Your task to perform on an android device: Open Android settings Image 0: 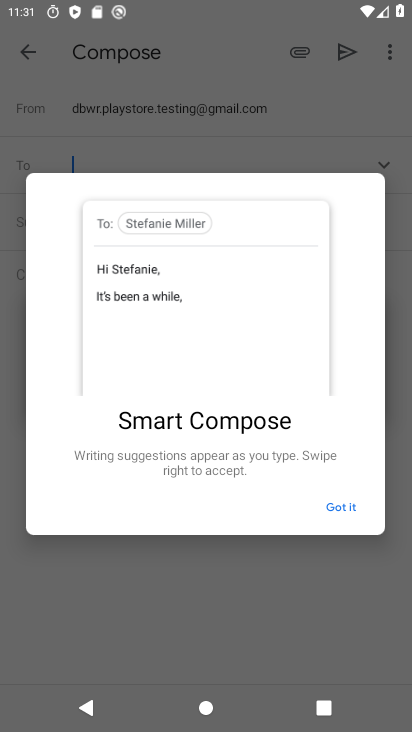
Step 0: press home button
Your task to perform on an android device: Open Android settings Image 1: 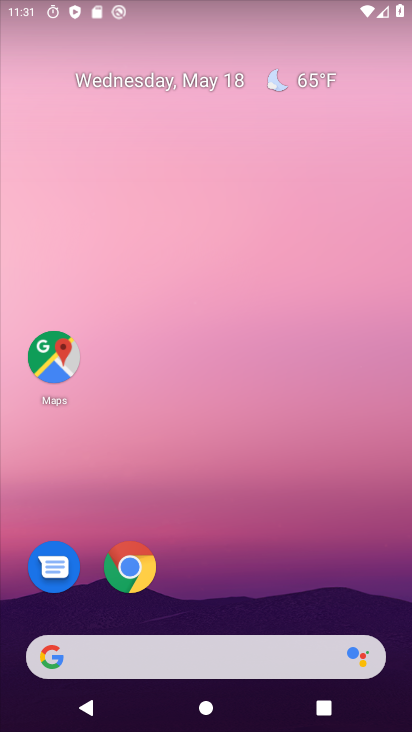
Step 1: drag from (266, 594) to (322, 61)
Your task to perform on an android device: Open Android settings Image 2: 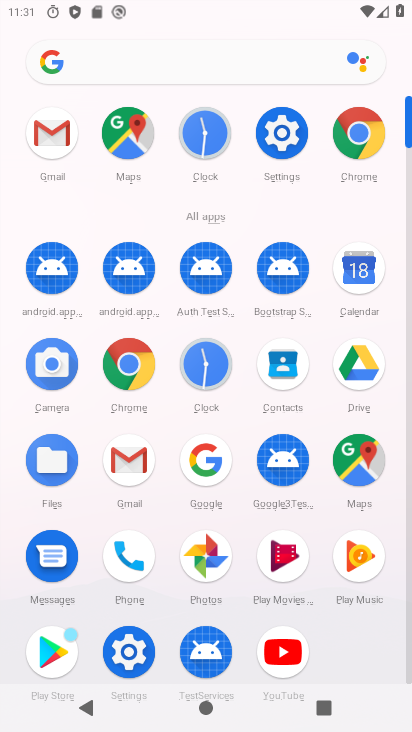
Step 2: click (284, 138)
Your task to perform on an android device: Open Android settings Image 3: 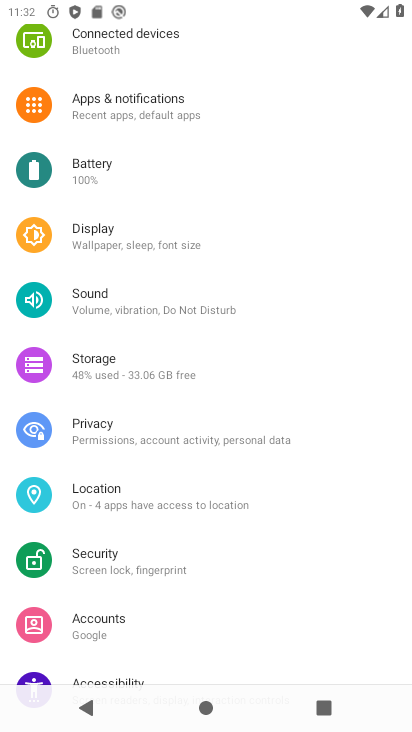
Step 3: drag from (215, 552) to (200, 215)
Your task to perform on an android device: Open Android settings Image 4: 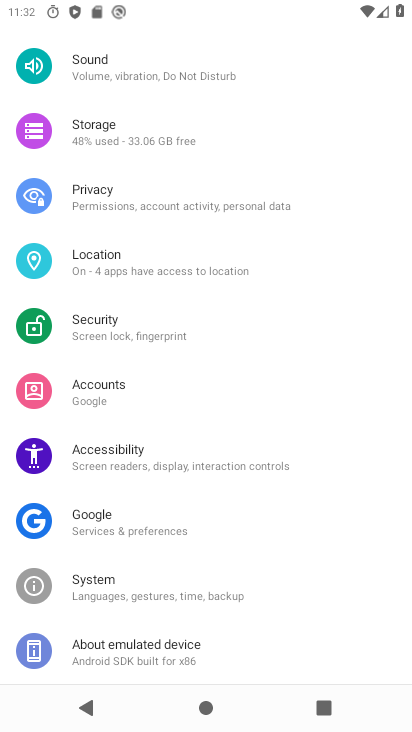
Step 4: click (173, 648)
Your task to perform on an android device: Open Android settings Image 5: 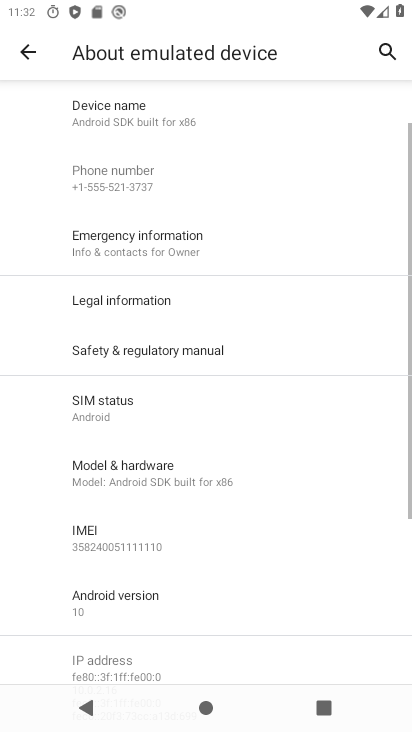
Step 5: click (142, 598)
Your task to perform on an android device: Open Android settings Image 6: 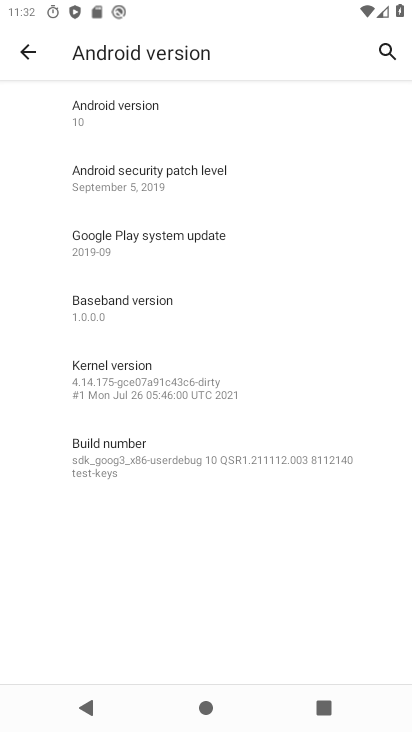
Step 6: click (152, 108)
Your task to perform on an android device: Open Android settings Image 7: 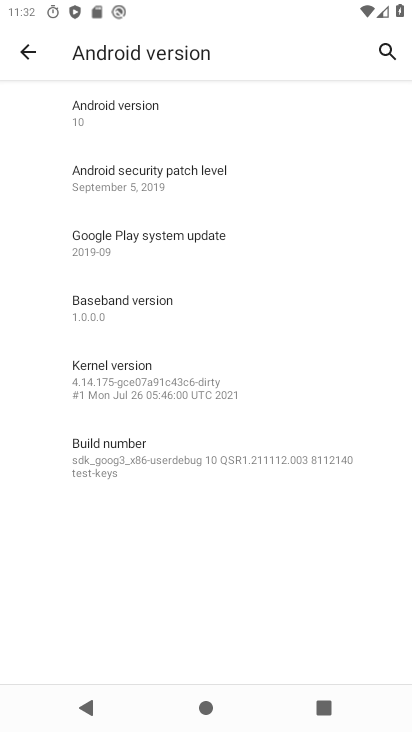
Step 7: task complete